Your task to perform on an android device: Open calendar and show me the third week of next month Image 0: 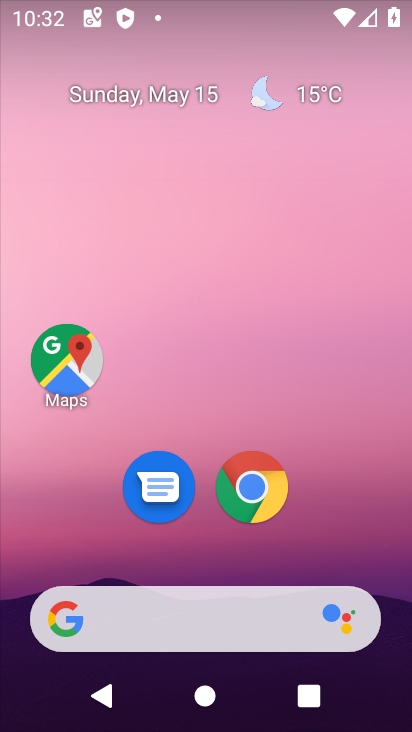
Step 0: drag from (394, 623) to (341, 70)
Your task to perform on an android device: Open calendar and show me the third week of next month Image 1: 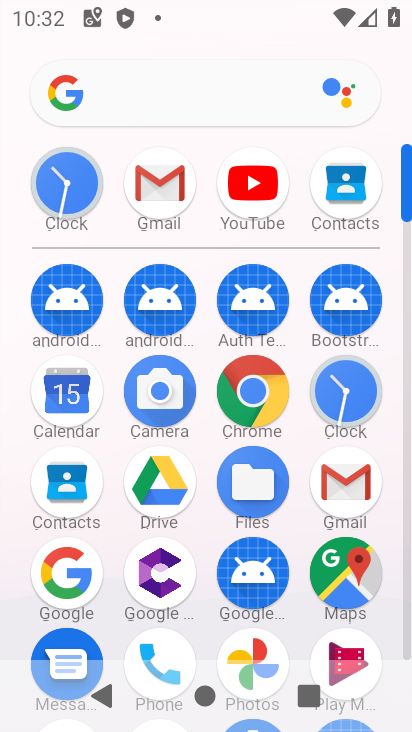
Step 1: click (407, 640)
Your task to perform on an android device: Open calendar and show me the third week of next month Image 2: 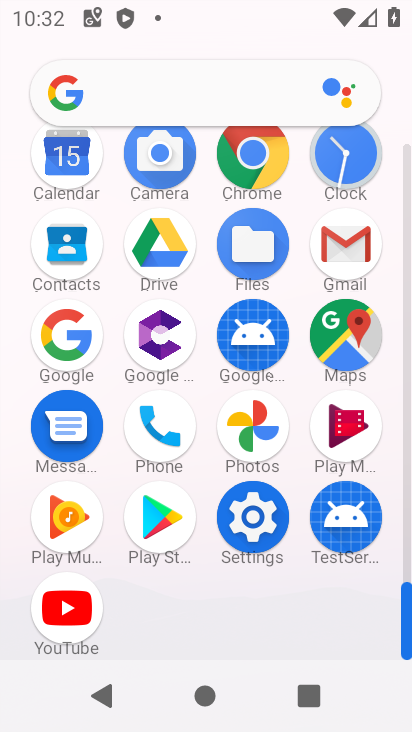
Step 2: click (65, 154)
Your task to perform on an android device: Open calendar and show me the third week of next month Image 3: 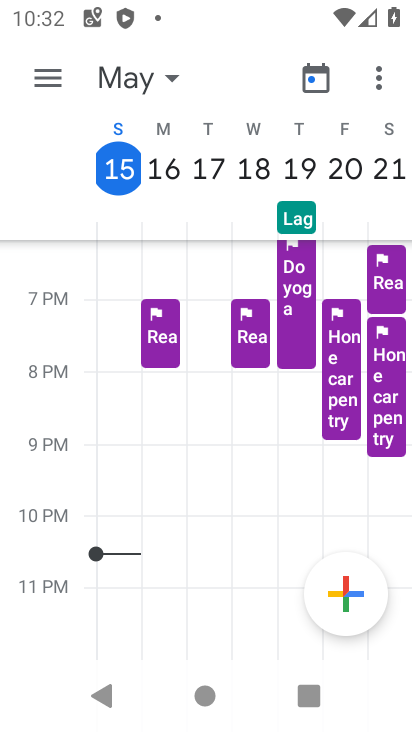
Step 3: click (47, 85)
Your task to perform on an android device: Open calendar and show me the third week of next month Image 4: 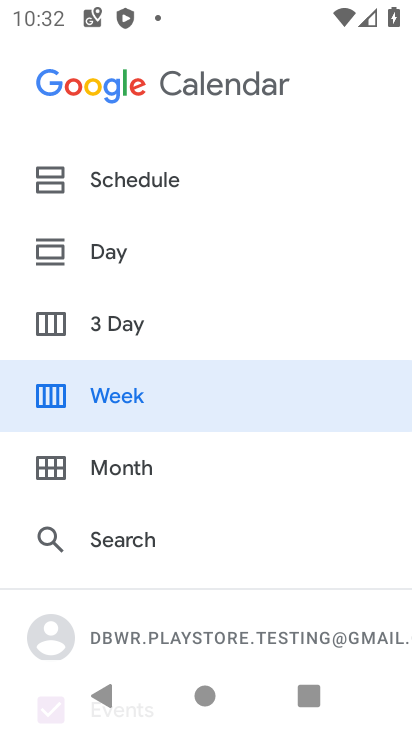
Step 4: click (146, 390)
Your task to perform on an android device: Open calendar and show me the third week of next month Image 5: 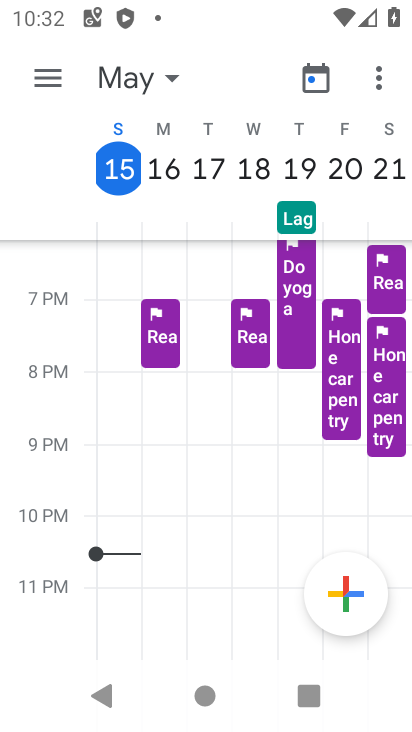
Step 5: click (160, 75)
Your task to perform on an android device: Open calendar and show me the third week of next month Image 6: 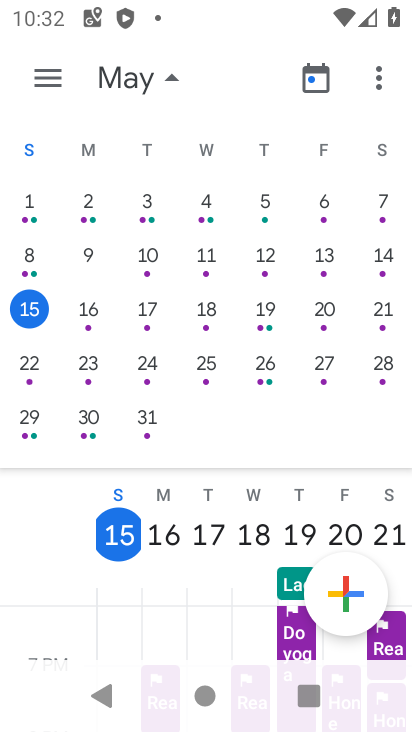
Step 6: drag from (365, 307) to (19, 196)
Your task to perform on an android device: Open calendar and show me the third week of next month Image 7: 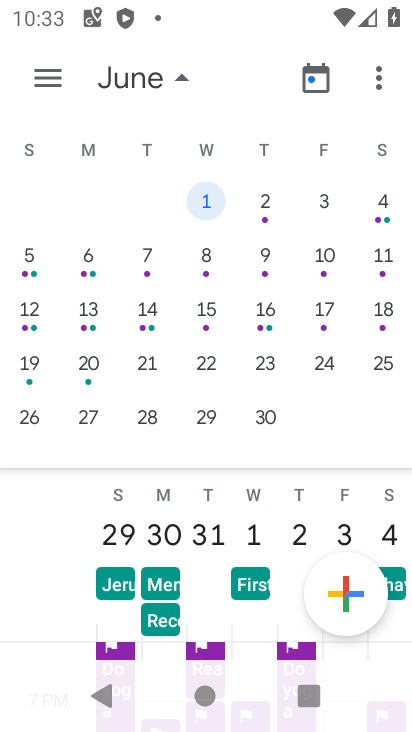
Step 7: click (20, 306)
Your task to perform on an android device: Open calendar and show me the third week of next month Image 8: 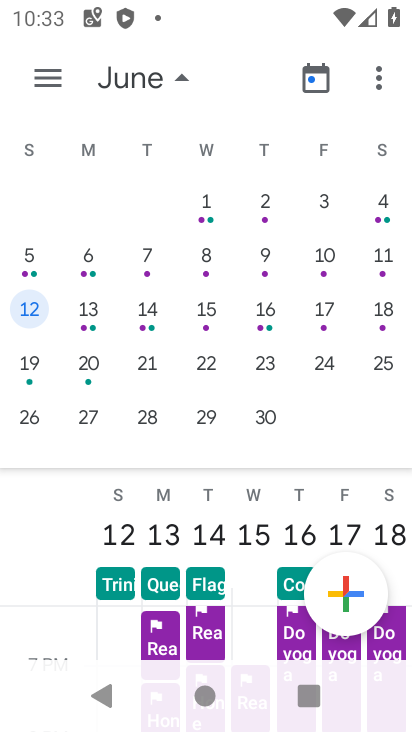
Step 8: task complete